Your task to perform on an android device: check data usage Image 0: 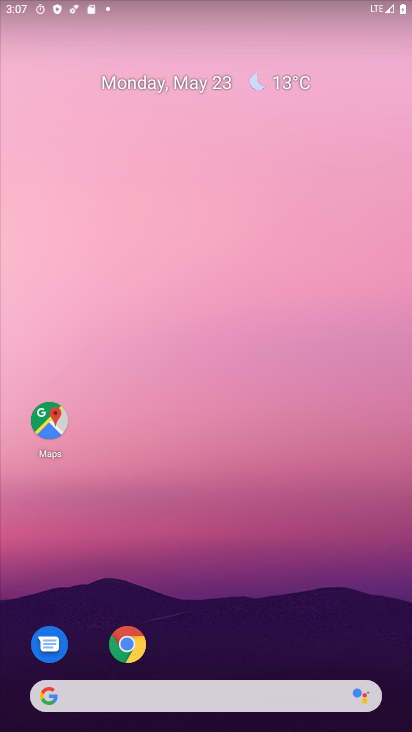
Step 0: drag from (214, 671) to (109, 5)
Your task to perform on an android device: check data usage Image 1: 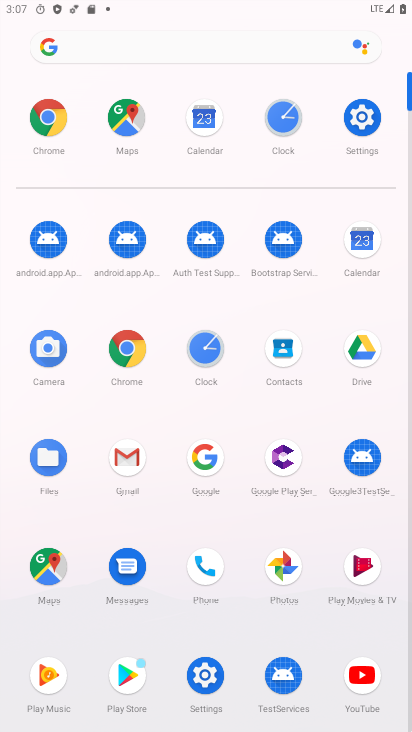
Step 1: click (197, 684)
Your task to perform on an android device: check data usage Image 2: 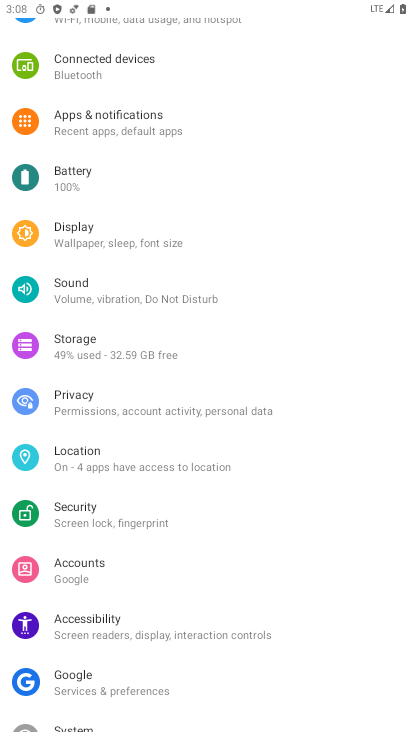
Step 2: drag from (135, 124) to (111, 626)
Your task to perform on an android device: check data usage Image 3: 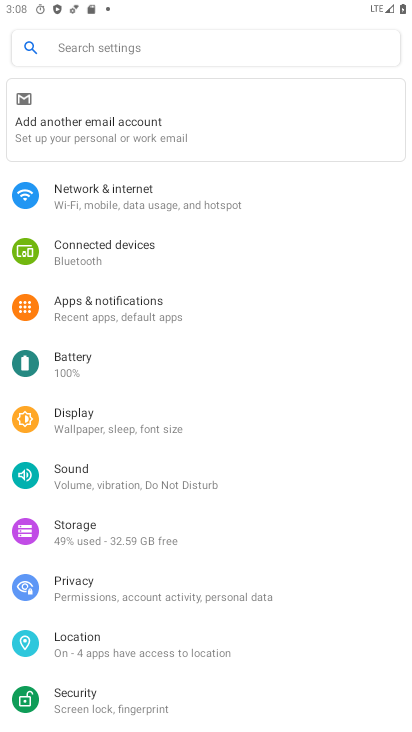
Step 3: click (95, 209)
Your task to perform on an android device: check data usage Image 4: 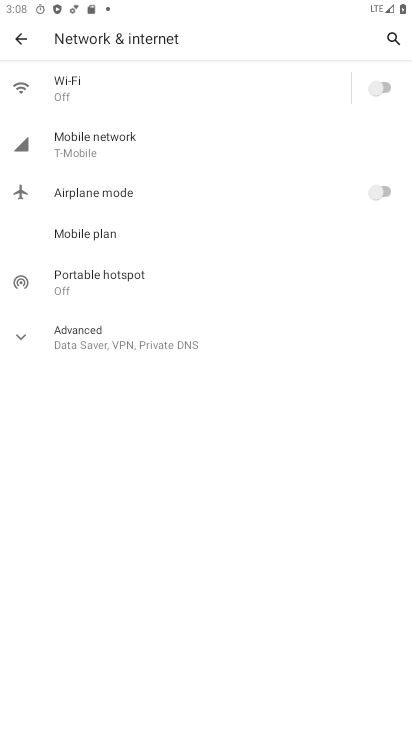
Step 4: click (97, 146)
Your task to perform on an android device: check data usage Image 5: 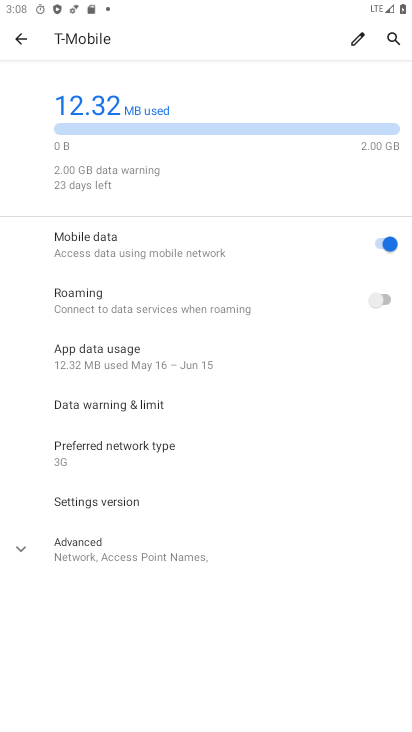
Step 5: task complete